Your task to perform on an android device: What's the weather? Image 0: 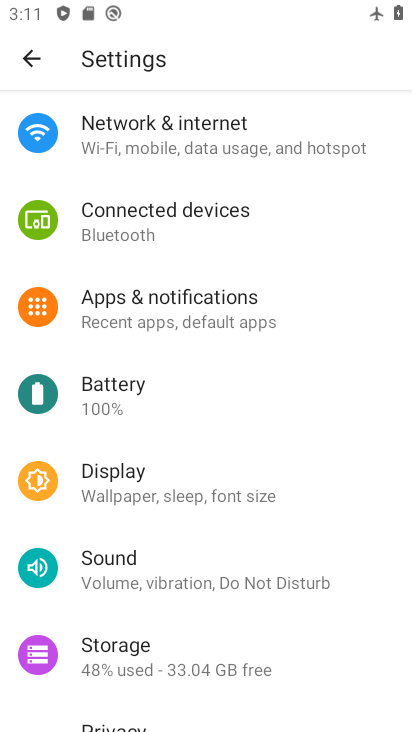
Step 0: press home button
Your task to perform on an android device: What's the weather? Image 1: 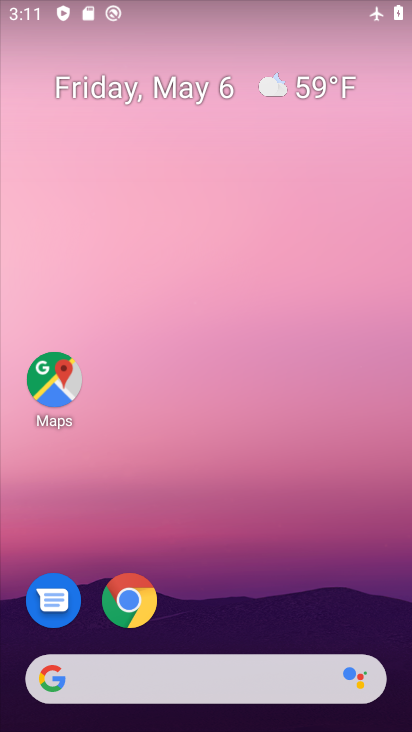
Step 1: click (342, 94)
Your task to perform on an android device: What's the weather? Image 2: 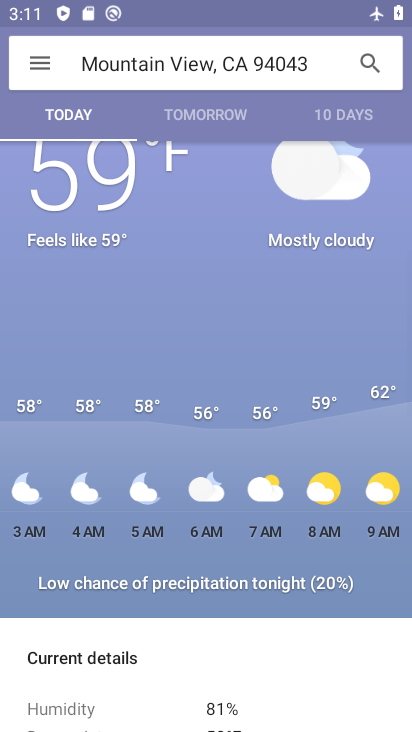
Step 2: task complete